Your task to perform on an android device: Open calendar and show me the fourth week of next month Image 0: 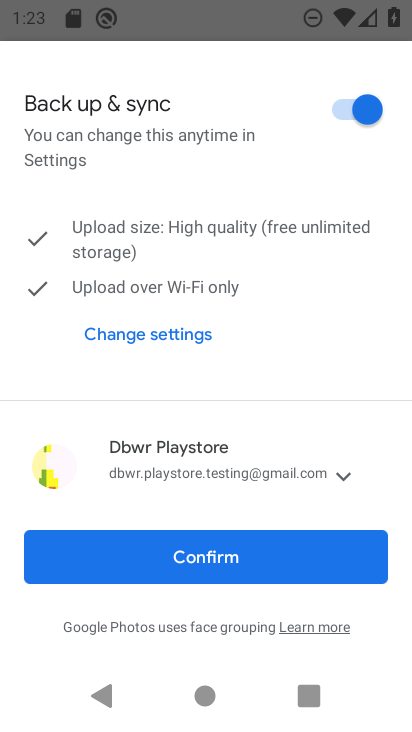
Step 0: press home button
Your task to perform on an android device: Open calendar and show me the fourth week of next month Image 1: 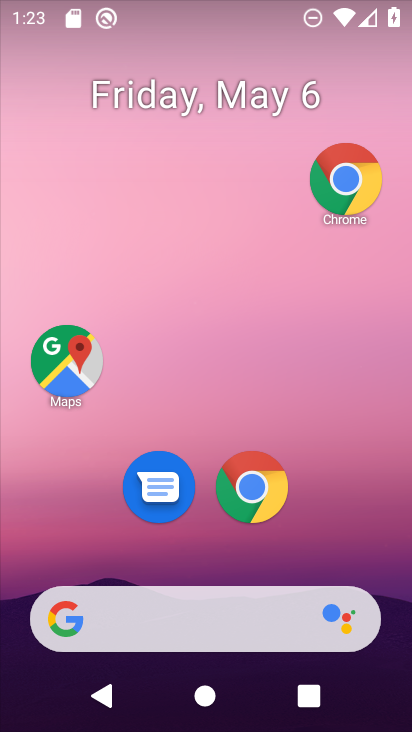
Step 1: drag from (364, 546) to (240, 116)
Your task to perform on an android device: Open calendar and show me the fourth week of next month Image 2: 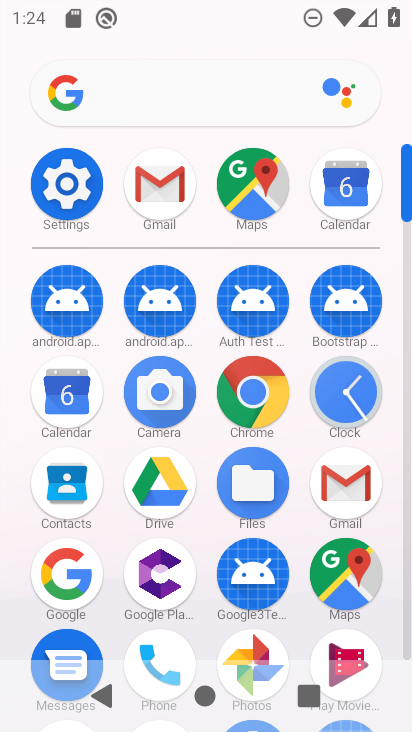
Step 2: click (83, 385)
Your task to perform on an android device: Open calendar and show me the fourth week of next month Image 3: 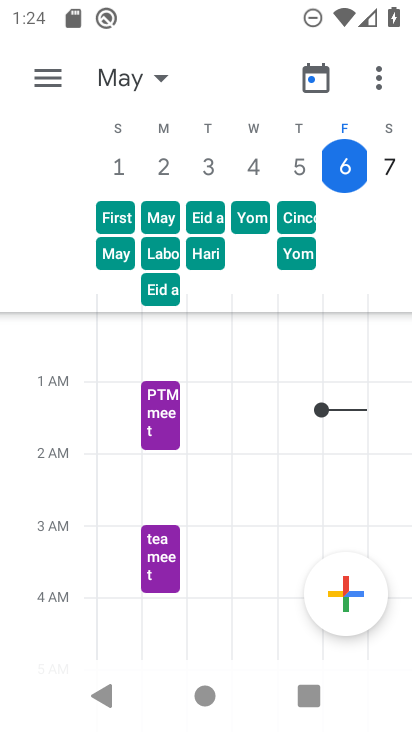
Step 3: drag from (379, 241) to (106, 257)
Your task to perform on an android device: Open calendar and show me the fourth week of next month Image 4: 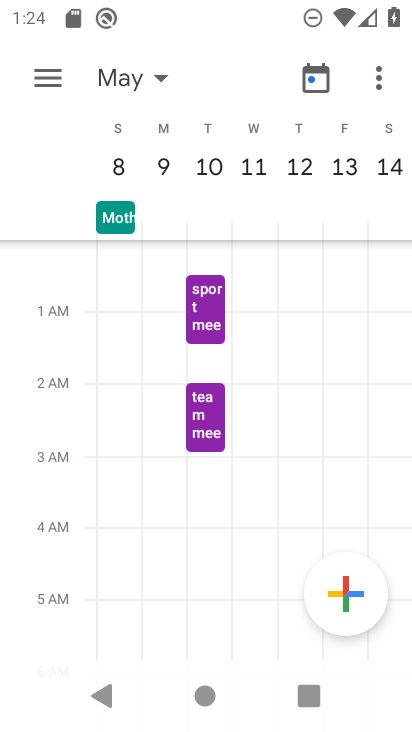
Step 4: click (51, 77)
Your task to perform on an android device: Open calendar and show me the fourth week of next month Image 5: 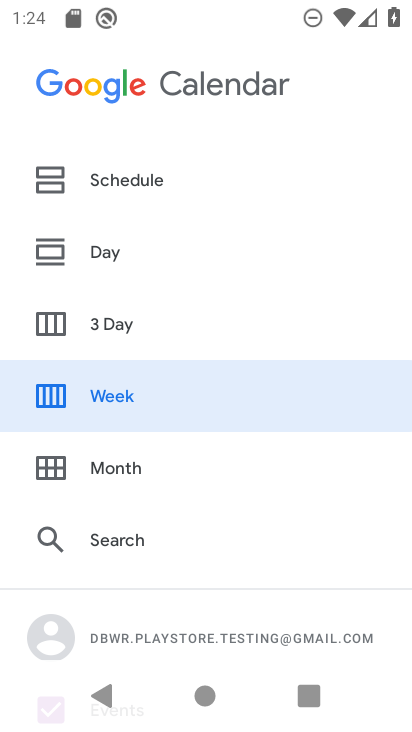
Step 5: click (99, 407)
Your task to perform on an android device: Open calendar and show me the fourth week of next month Image 6: 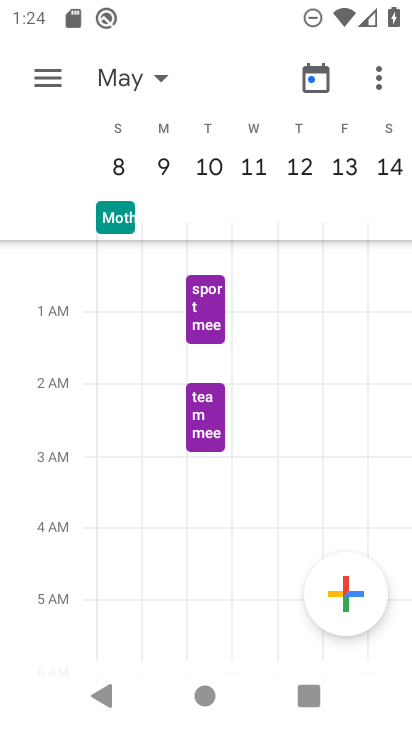
Step 6: click (162, 86)
Your task to perform on an android device: Open calendar and show me the fourth week of next month Image 7: 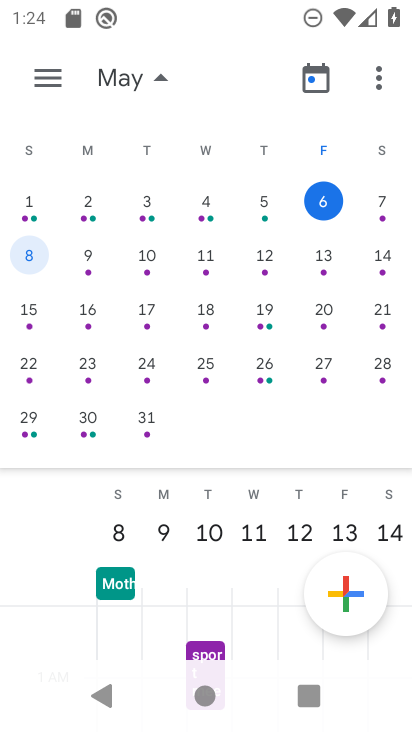
Step 7: click (251, 350)
Your task to perform on an android device: Open calendar and show me the fourth week of next month Image 8: 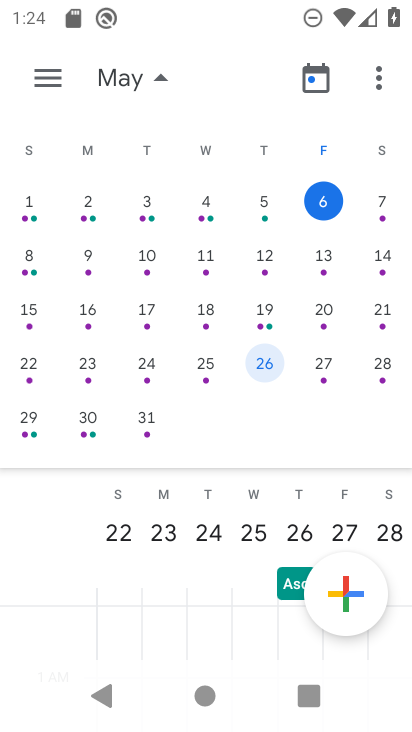
Step 8: task complete